Your task to perform on an android device: clear history in the chrome app Image 0: 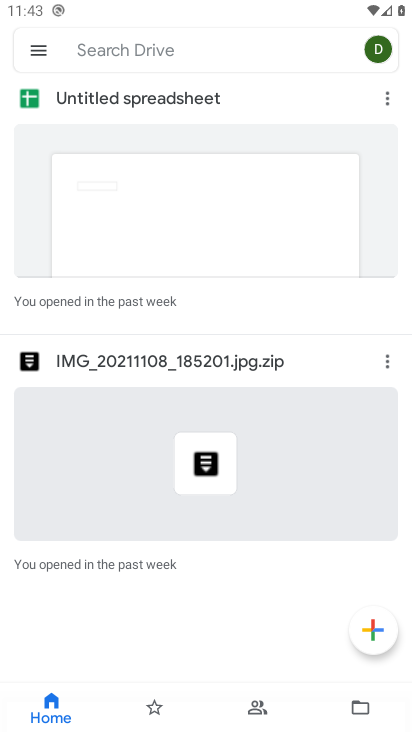
Step 0: press home button
Your task to perform on an android device: clear history in the chrome app Image 1: 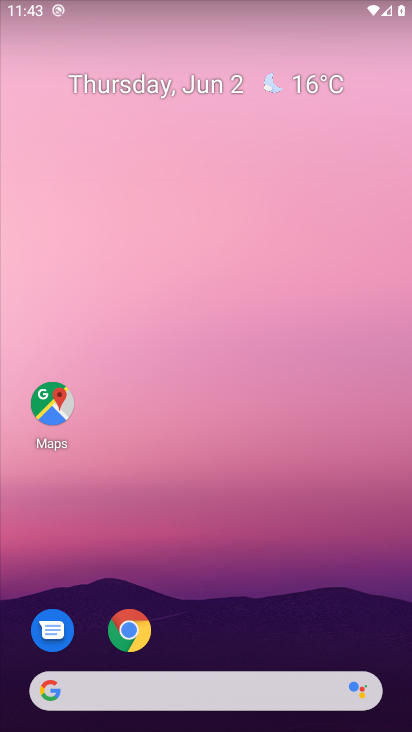
Step 1: click (126, 618)
Your task to perform on an android device: clear history in the chrome app Image 2: 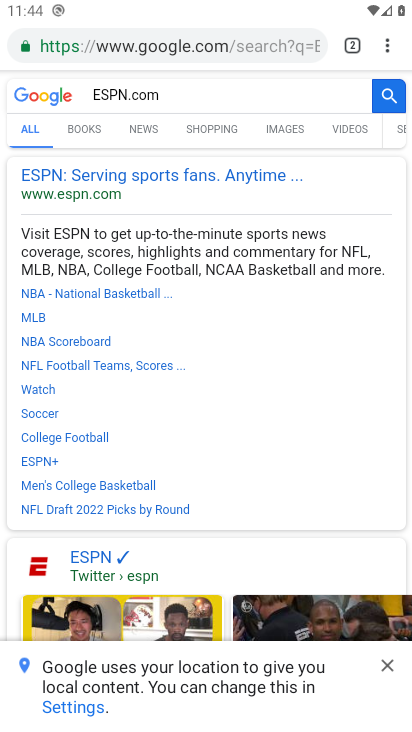
Step 2: click (392, 50)
Your task to perform on an android device: clear history in the chrome app Image 3: 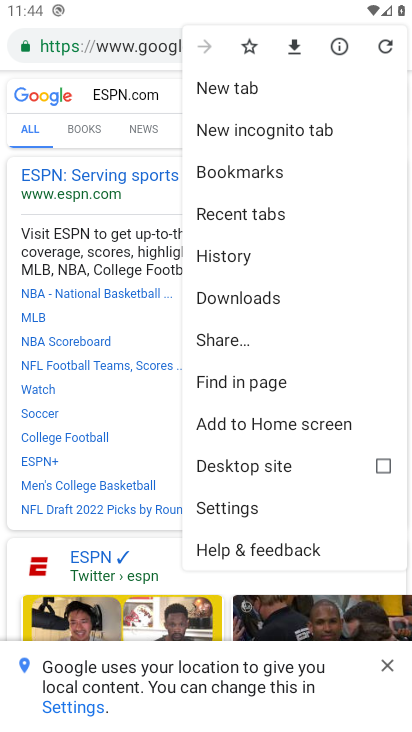
Step 3: click (237, 261)
Your task to perform on an android device: clear history in the chrome app Image 4: 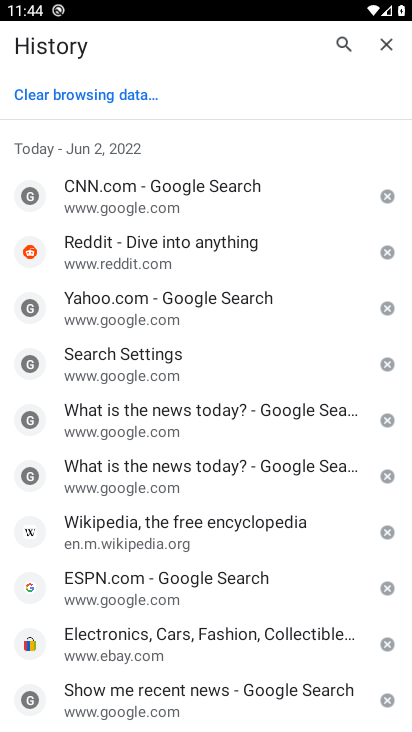
Step 4: click (98, 92)
Your task to perform on an android device: clear history in the chrome app Image 5: 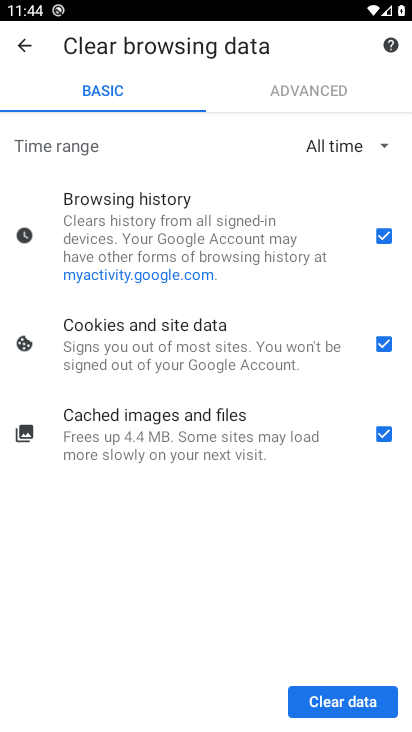
Step 5: click (363, 699)
Your task to perform on an android device: clear history in the chrome app Image 6: 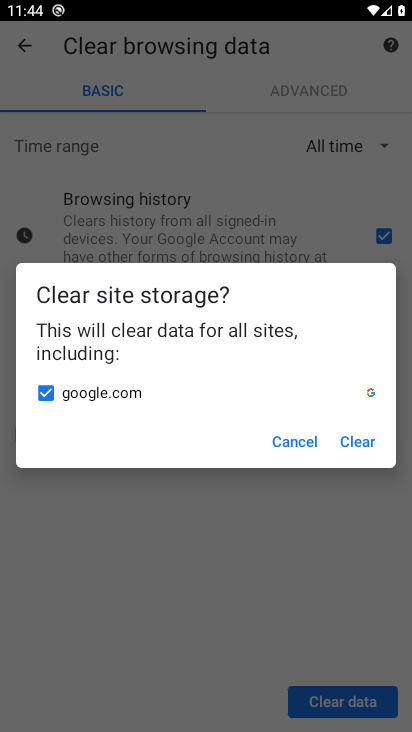
Step 6: click (368, 436)
Your task to perform on an android device: clear history in the chrome app Image 7: 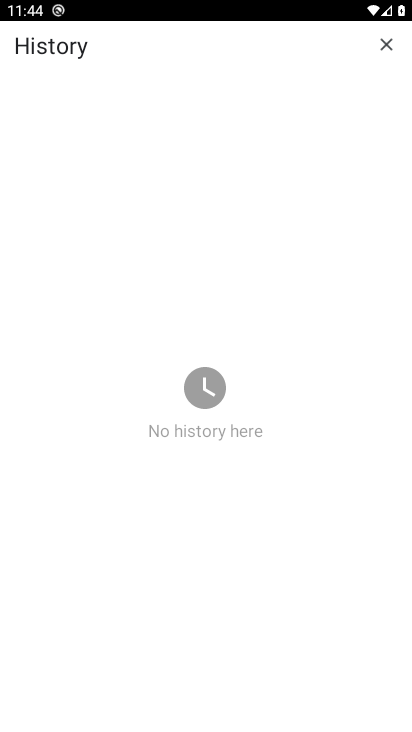
Step 7: task complete